Your task to perform on an android device: Search for seafood restaurants on Google Maps Image 0: 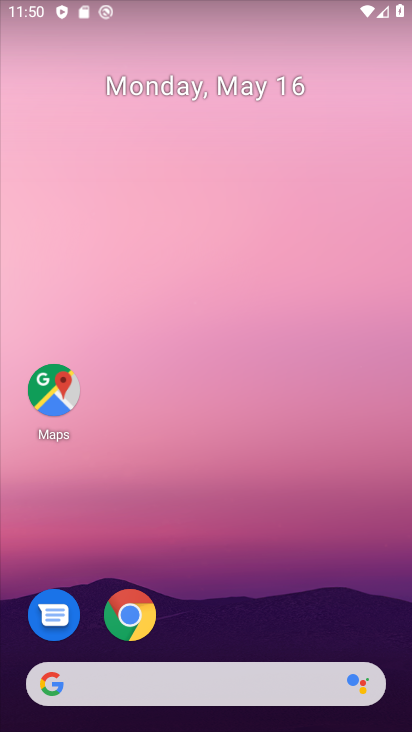
Step 0: click (53, 382)
Your task to perform on an android device: Search for seafood restaurants on Google Maps Image 1: 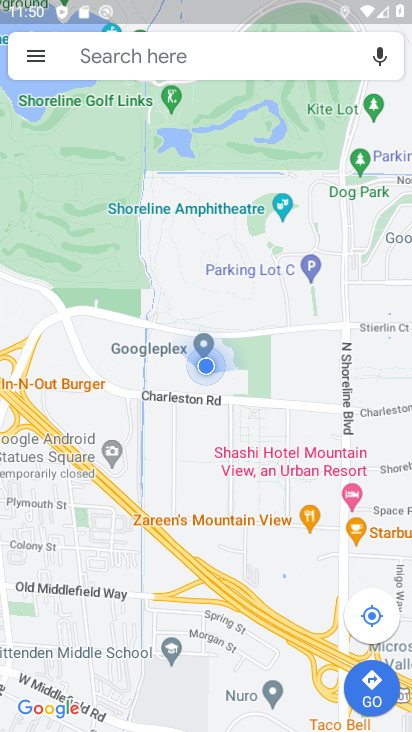
Step 1: click (149, 40)
Your task to perform on an android device: Search for seafood restaurants on Google Maps Image 2: 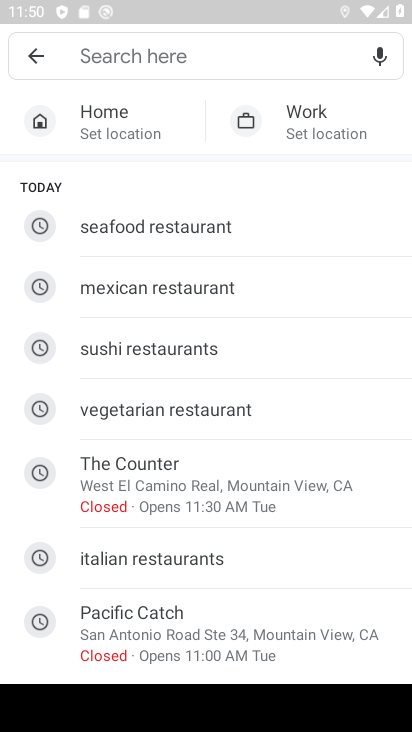
Step 2: drag from (185, 632) to (141, 365)
Your task to perform on an android device: Search for seafood restaurants on Google Maps Image 3: 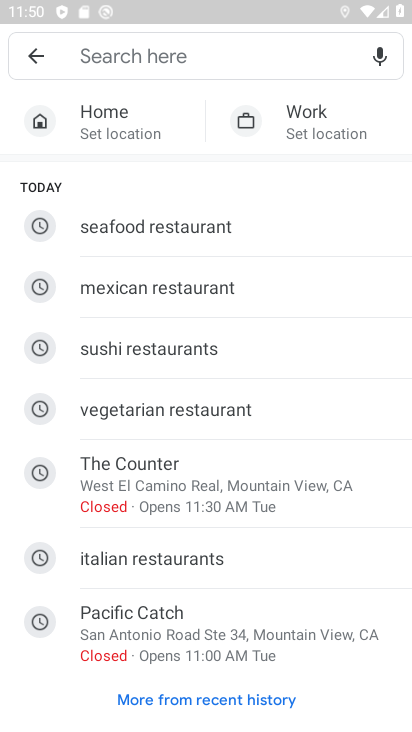
Step 3: click (151, 228)
Your task to perform on an android device: Search for seafood restaurants on Google Maps Image 4: 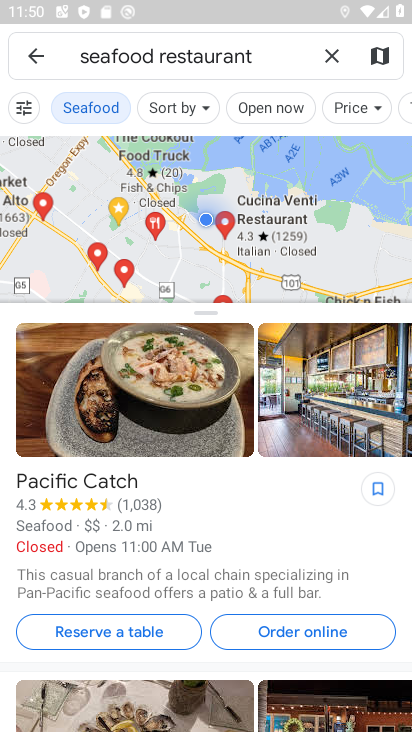
Step 4: task complete